Your task to perform on an android device: Go to Google Image 0: 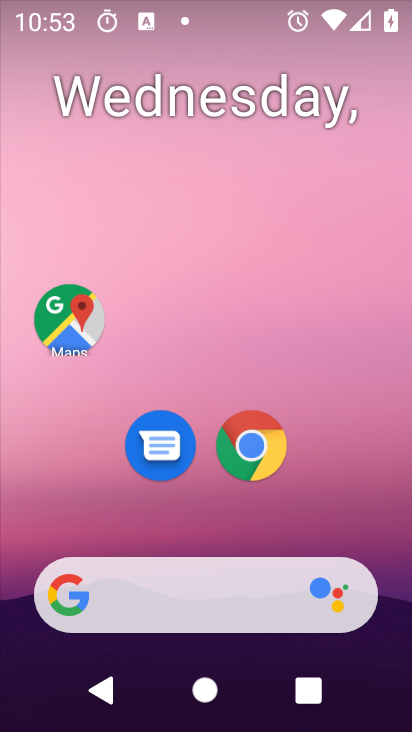
Step 0: drag from (350, 512) to (405, 37)
Your task to perform on an android device: Go to Google Image 1: 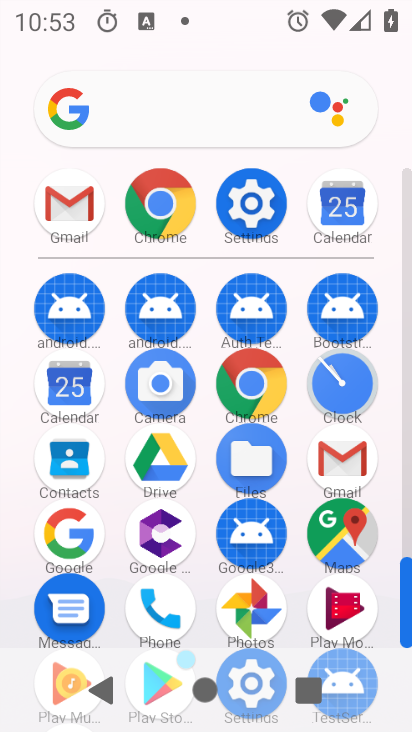
Step 1: click (64, 530)
Your task to perform on an android device: Go to Google Image 2: 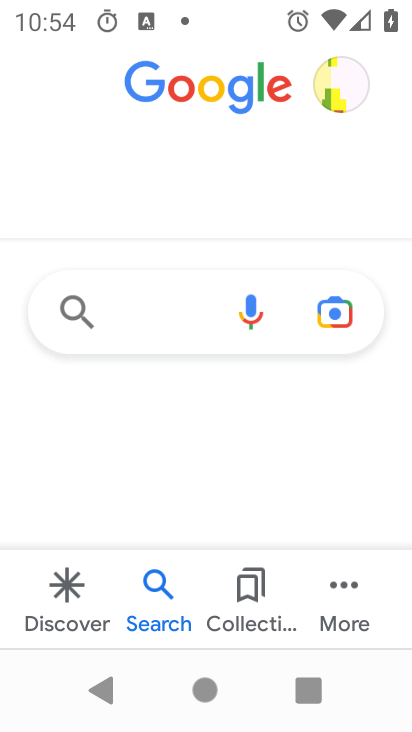
Step 2: task complete